Your task to perform on an android device: change your default location settings in chrome Image 0: 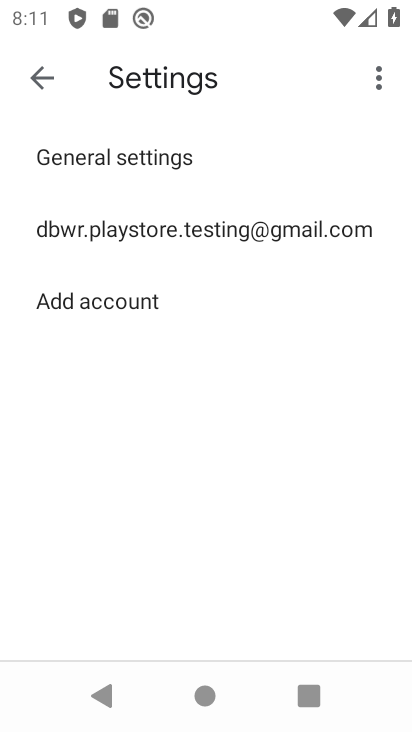
Step 0: press home button
Your task to perform on an android device: change your default location settings in chrome Image 1: 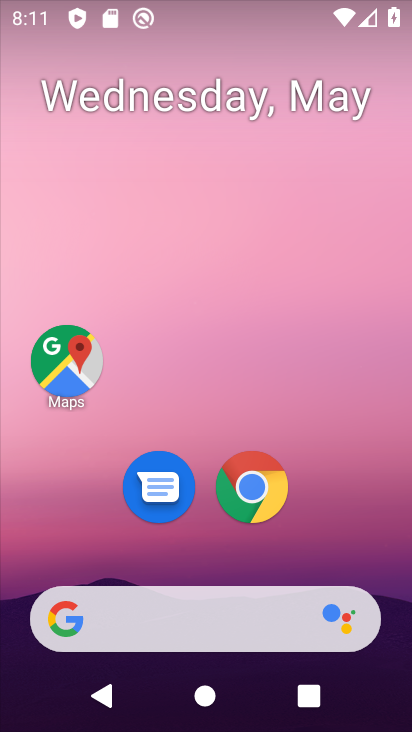
Step 1: click (249, 467)
Your task to perform on an android device: change your default location settings in chrome Image 2: 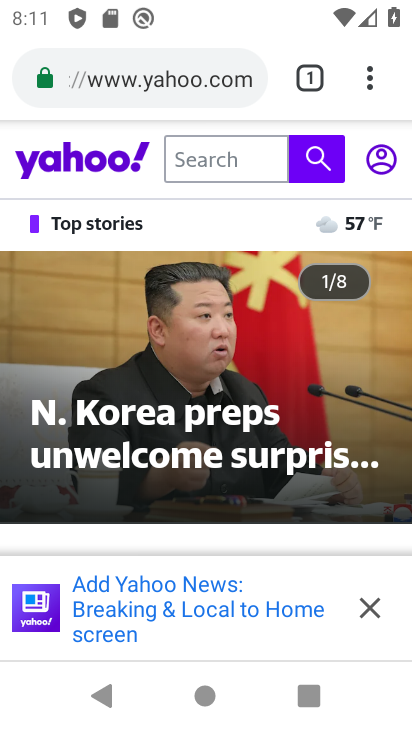
Step 2: click (371, 79)
Your task to perform on an android device: change your default location settings in chrome Image 3: 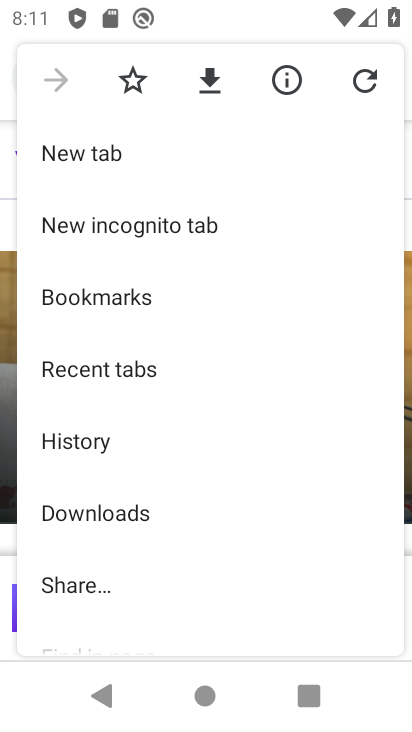
Step 3: drag from (231, 516) to (291, 265)
Your task to perform on an android device: change your default location settings in chrome Image 4: 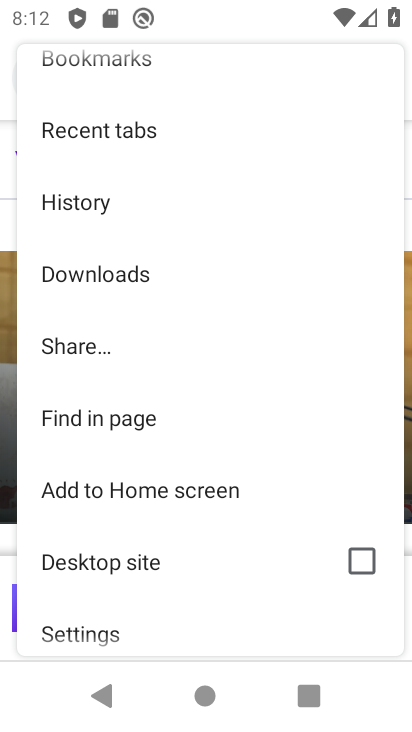
Step 4: drag from (192, 588) to (220, 360)
Your task to perform on an android device: change your default location settings in chrome Image 5: 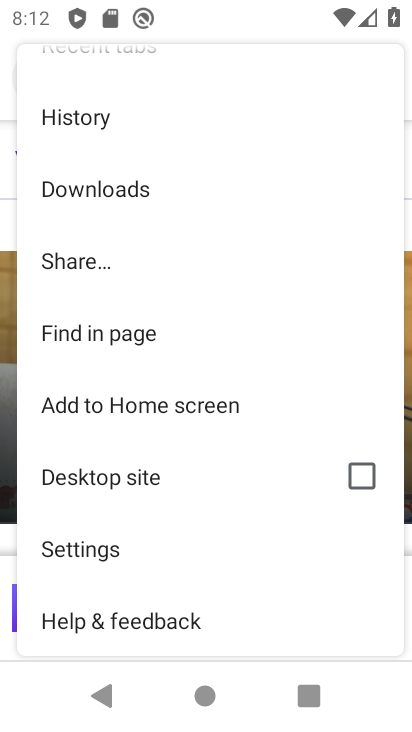
Step 5: click (141, 547)
Your task to perform on an android device: change your default location settings in chrome Image 6: 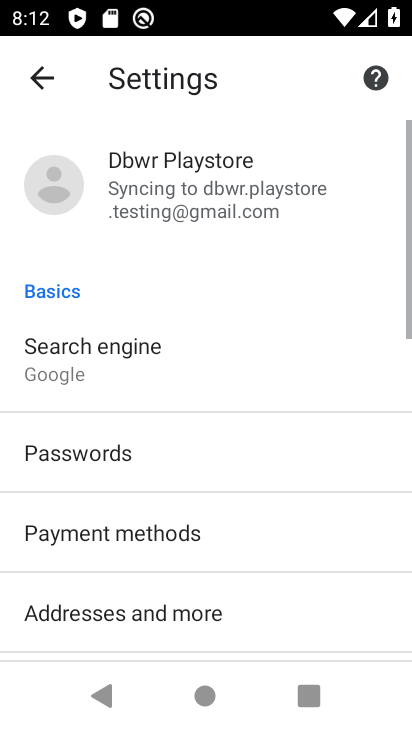
Step 6: drag from (141, 547) to (194, 333)
Your task to perform on an android device: change your default location settings in chrome Image 7: 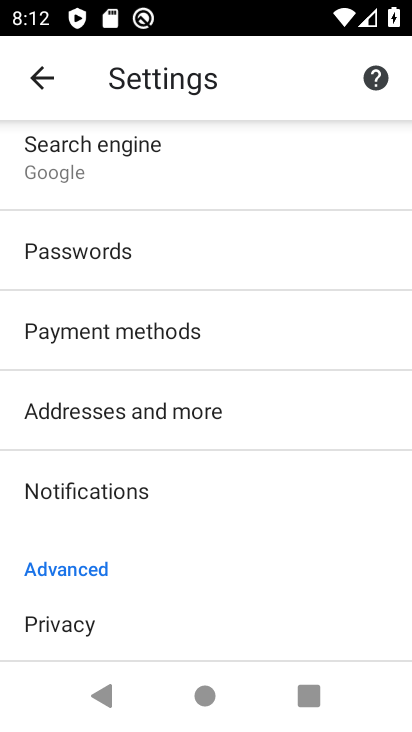
Step 7: drag from (220, 544) to (304, 258)
Your task to perform on an android device: change your default location settings in chrome Image 8: 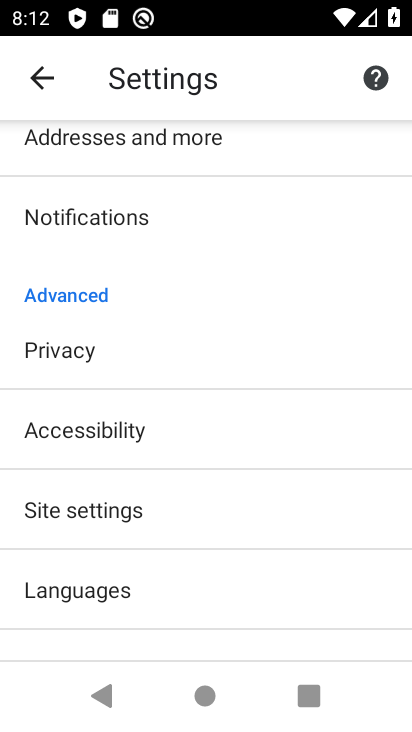
Step 8: drag from (160, 596) to (236, 358)
Your task to perform on an android device: change your default location settings in chrome Image 9: 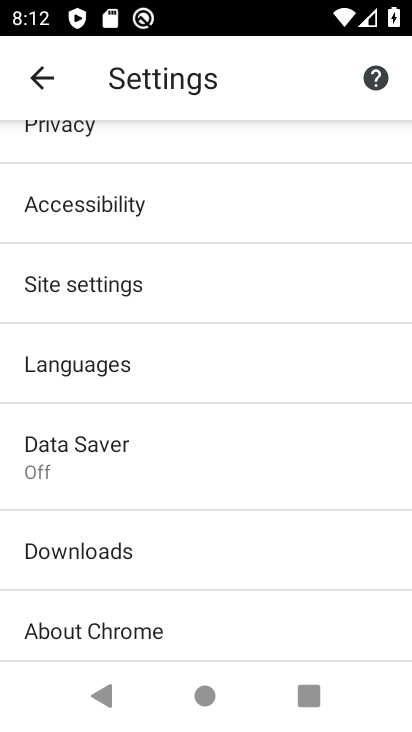
Step 9: click (185, 290)
Your task to perform on an android device: change your default location settings in chrome Image 10: 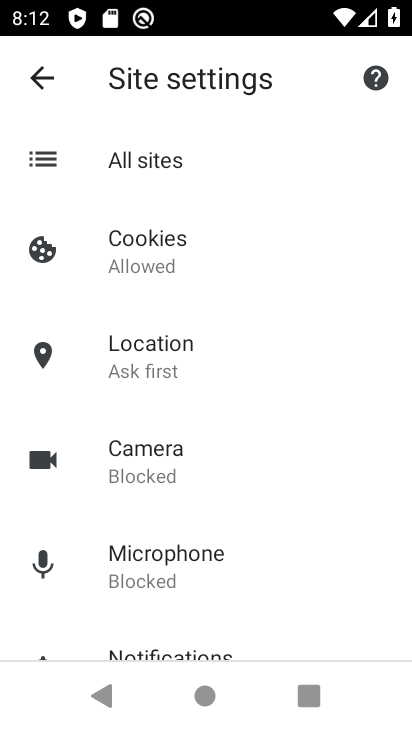
Step 10: click (205, 347)
Your task to perform on an android device: change your default location settings in chrome Image 11: 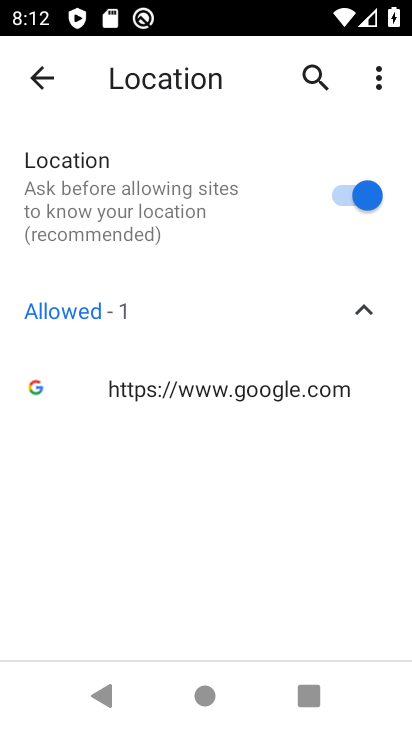
Step 11: click (339, 196)
Your task to perform on an android device: change your default location settings in chrome Image 12: 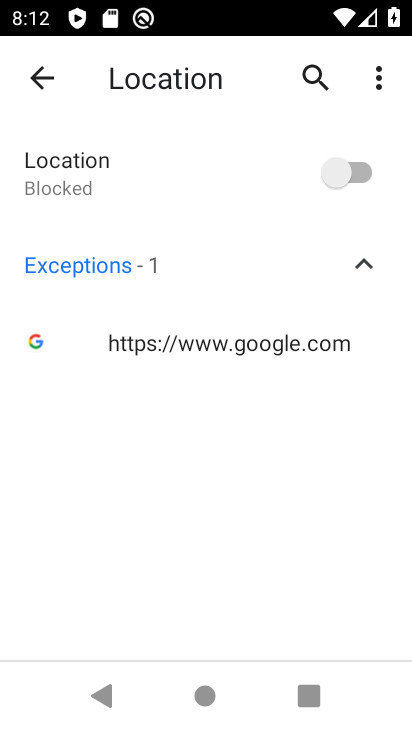
Step 12: task complete